Your task to perform on an android device: toggle data saver in the chrome app Image 0: 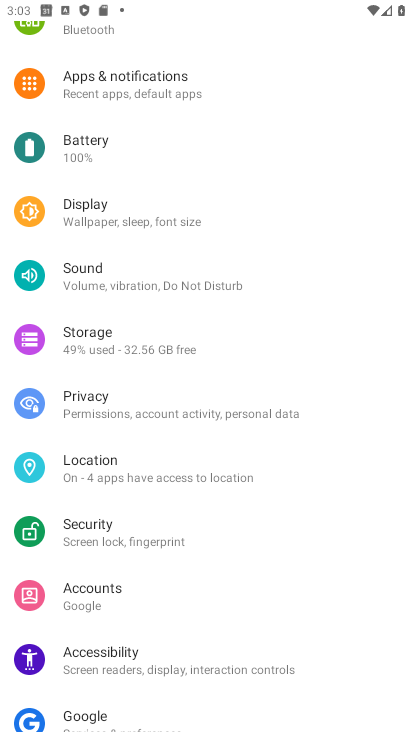
Step 0: press home button
Your task to perform on an android device: toggle data saver in the chrome app Image 1: 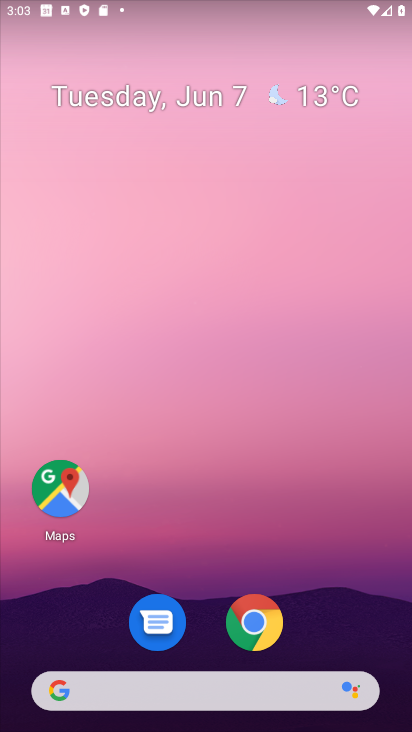
Step 1: click (248, 623)
Your task to perform on an android device: toggle data saver in the chrome app Image 2: 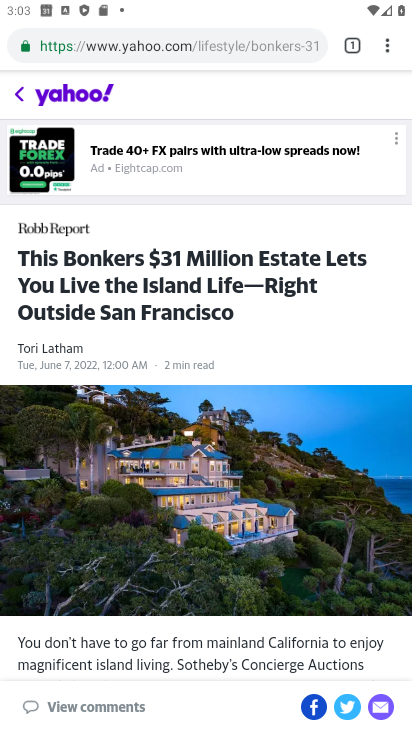
Step 2: click (390, 41)
Your task to perform on an android device: toggle data saver in the chrome app Image 3: 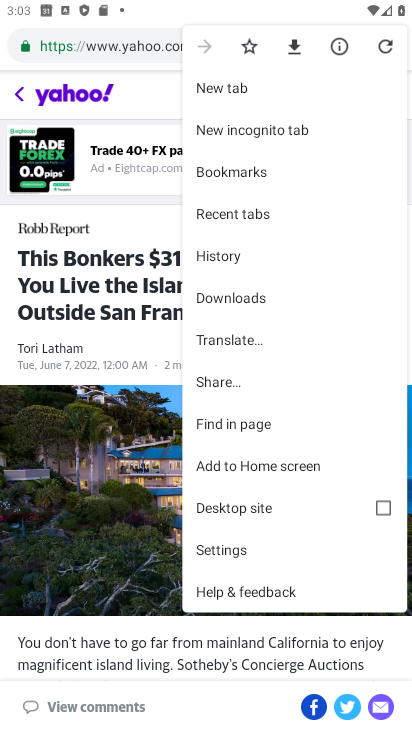
Step 3: click (227, 553)
Your task to perform on an android device: toggle data saver in the chrome app Image 4: 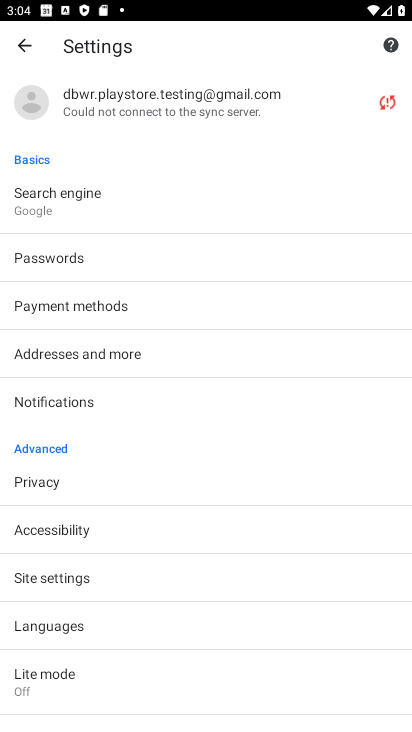
Step 4: click (51, 664)
Your task to perform on an android device: toggle data saver in the chrome app Image 5: 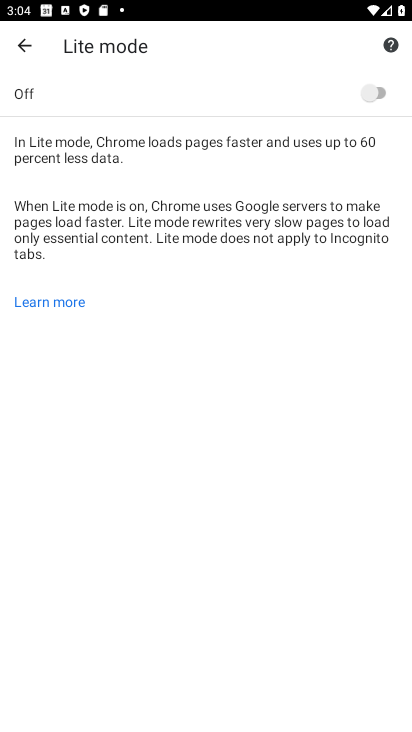
Step 5: click (382, 90)
Your task to perform on an android device: toggle data saver in the chrome app Image 6: 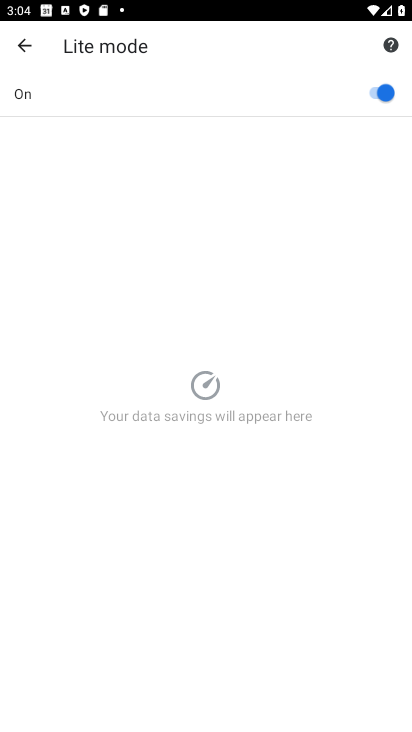
Step 6: task complete